Your task to perform on an android device: Open Google Chrome and open the bookmarks view Image 0: 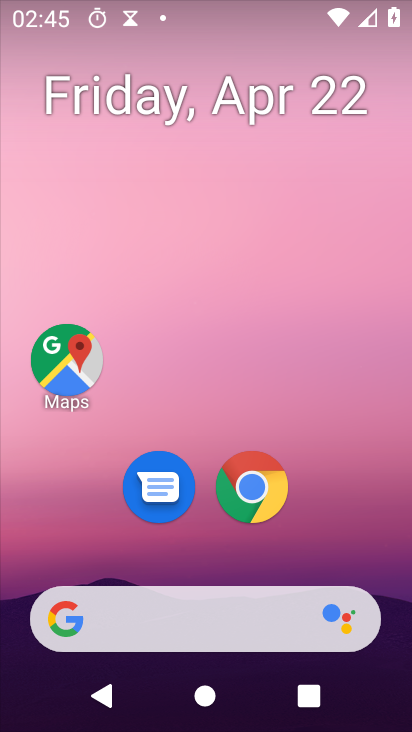
Step 0: drag from (117, 603) to (259, 100)
Your task to perform on an android device: Open Google Chrome and open the bookmarks view Image 1: 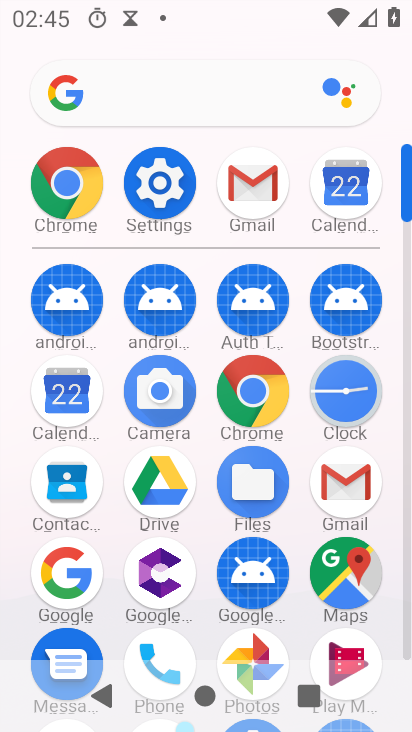
Step 1: click (86, 198)
Your task to perform on an android device: Open Google Chrome and open the bookmarks view Image 2: 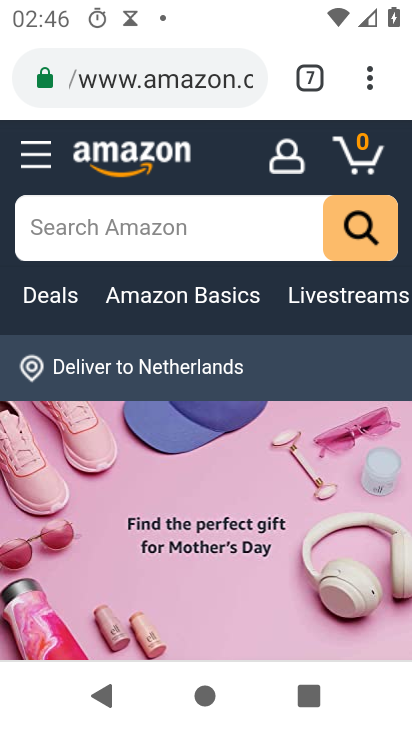
Step 2: drag from (369, 82) to (123, 306)
Your task to perform on an android device: Open Google Chrome and open the bookmarks view Image 3: 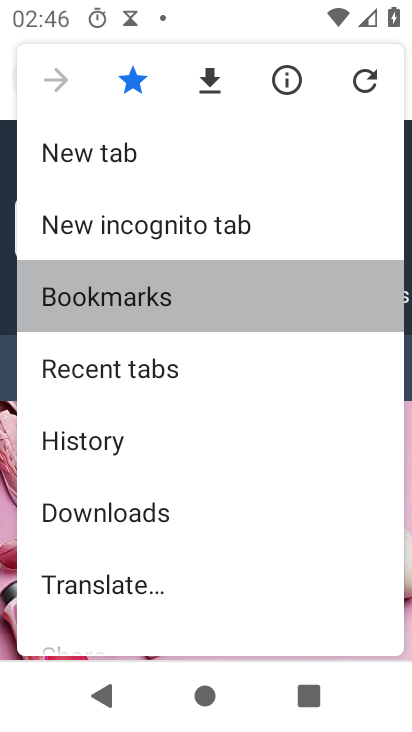
Step 3: click (123, 305)
Your task to perform on an android device: Open Google Chrome and open the bookmarks view Image 4: 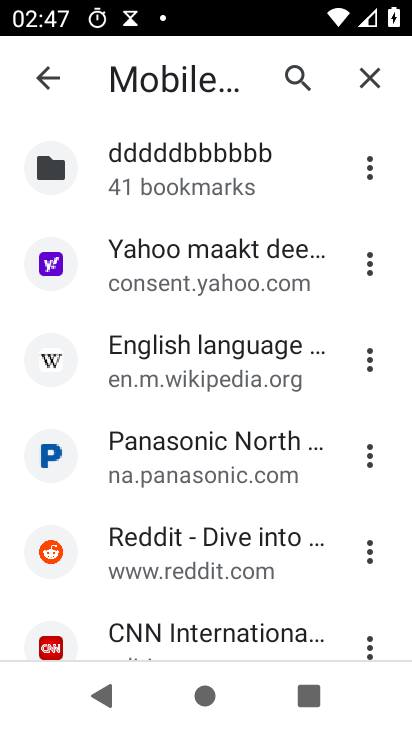
Step 4: task complete